Your task to perform on an android device: turn pop-ups on in chrome Image 0: 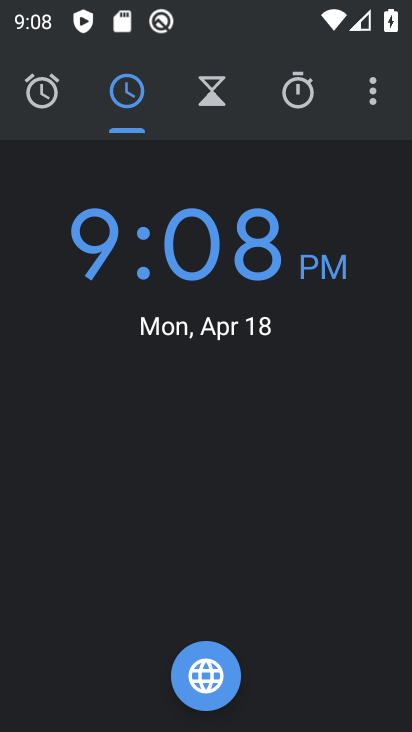
Step 0: press home button
Your task to perform on an android device: turn pop-ups on in chrome Image 1: 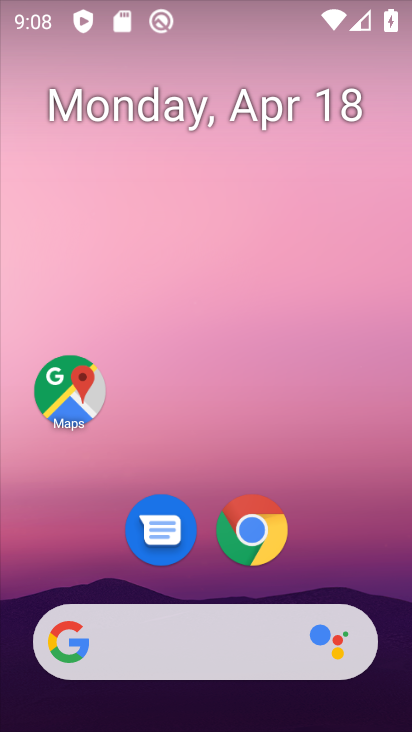
Step 1: click (253, 522)
Your task to perform on an android device: turn pop-ups on in chrome Image 2: 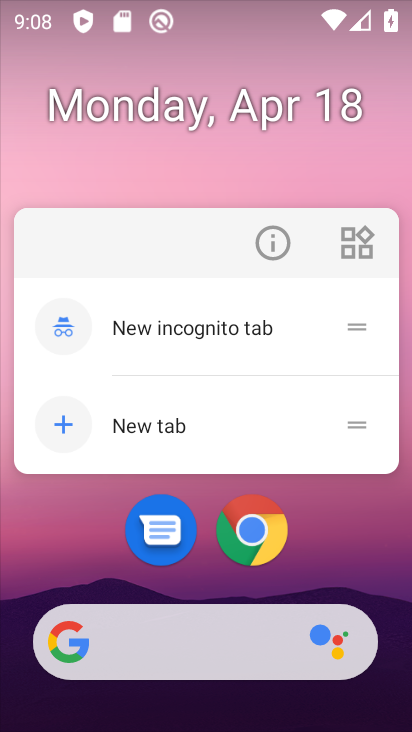
Step 2: click (260, 535)
Your task to perform on an android device: turn pop-ups on in chrome Image 3: 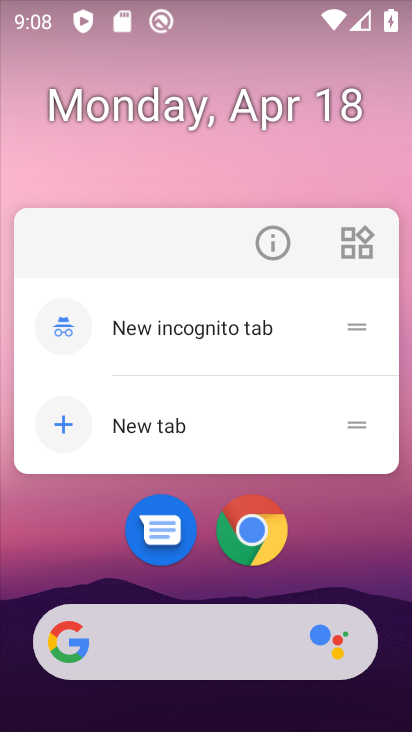
Step 3: click (260, 535)
Your task to perform on an android device: turn pop-ups on in chrome Image 4: 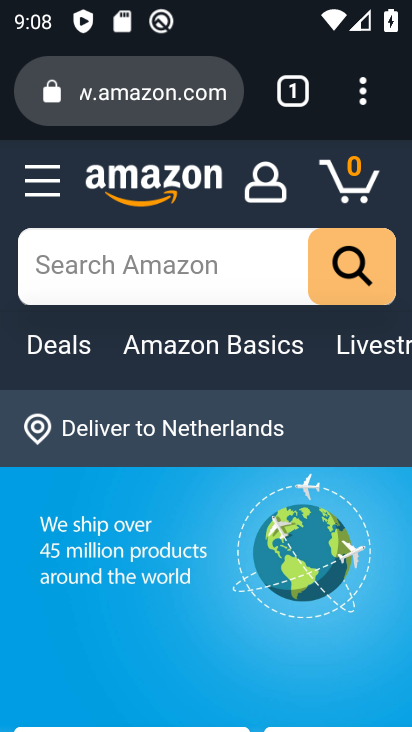
Step 4: click (363, 97)
Your task to perform on an android device: turn pop-ups on in chrome Image 5: 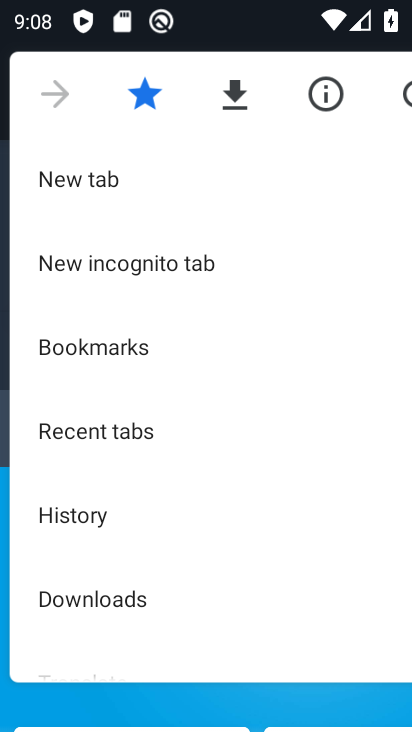
Step 5: drag from (207, 596) to (206, 220)
Your task to perform on an android device: turn pop-ups on in chrome Image 6: 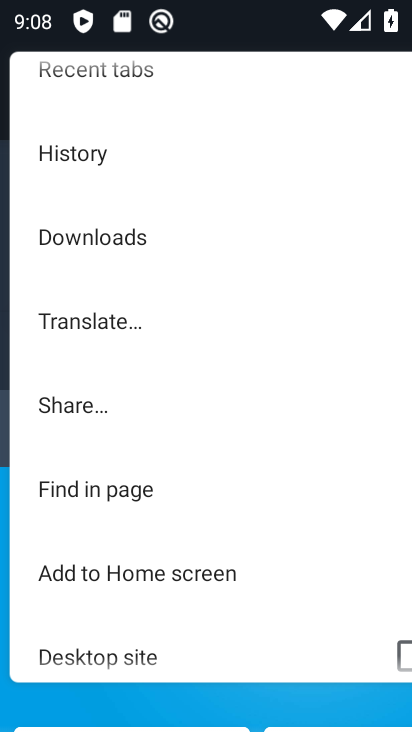
Step 6: drag from (253, 602) to (263, 217)
Your task to perform on an android device: turn pop-ups on in chrome Image 7: 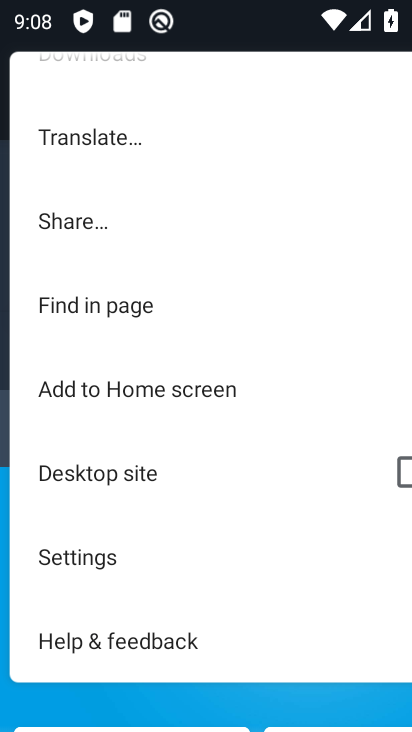
Step 7: click (76, 561)
Your task to perform on an android device: turn pop-ups on in chrome Image 8: 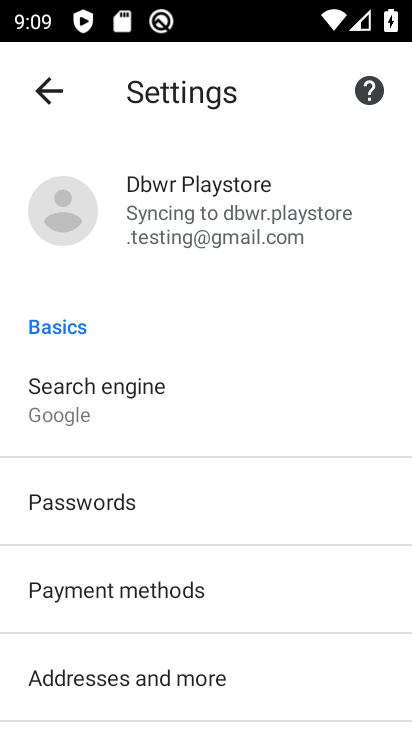
Step 8: drag from (312, 630) to (291, 153)
Your task to perform on an android device: turn pop-ups on in chrome Image 9: 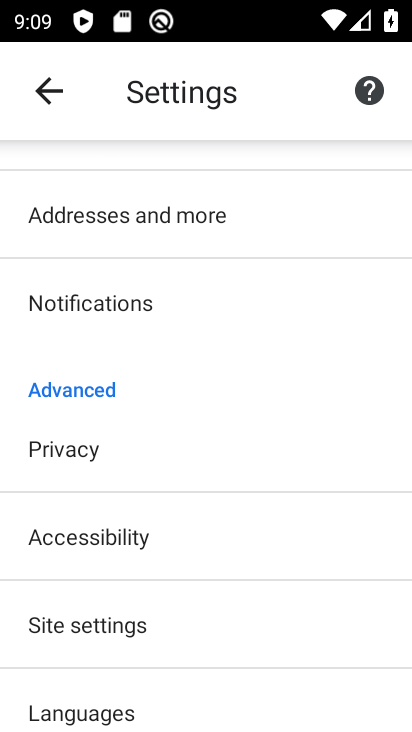
Step 9: click (113, 629)
Your task to perform on an android device: turn pop-ups on in chrome Image 10: 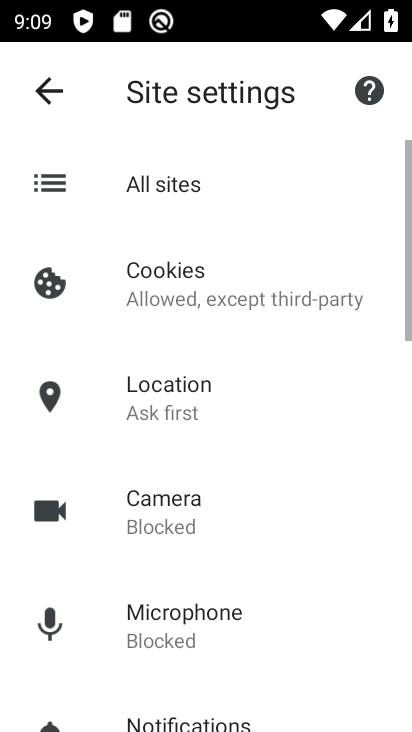
Step 10: drag from (319, 642) to (289, 247)
Your task to perform on an android device: turn pop-ups on in chrome Image 11: 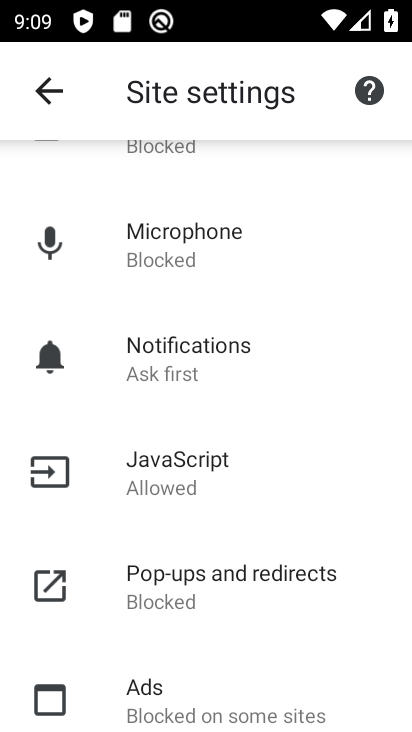
Step 11: click (160, 581)
Your task to perform on an android device: turn pop-ups on in chrome Image 12: 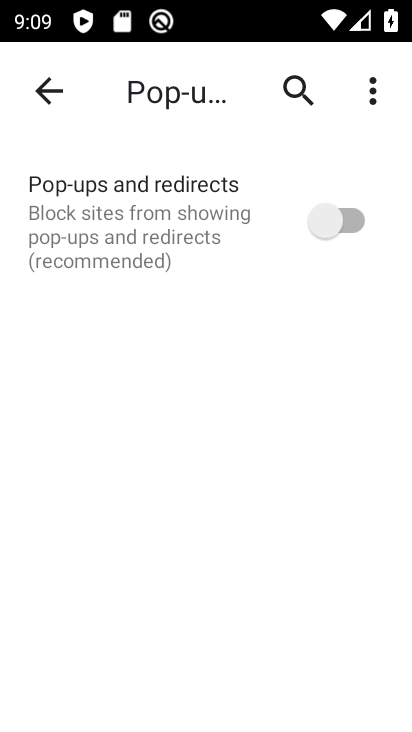
Step 12: click (334, 233)
Your task to perform on an android device: turn pop-ups on in chrome Image 13: 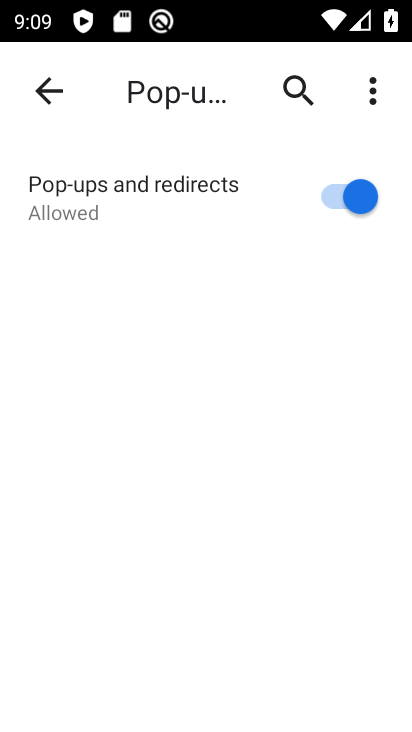
Step 13: task complete